Your task to perform on an android device: open a bookmark in the chrome app Image 0: 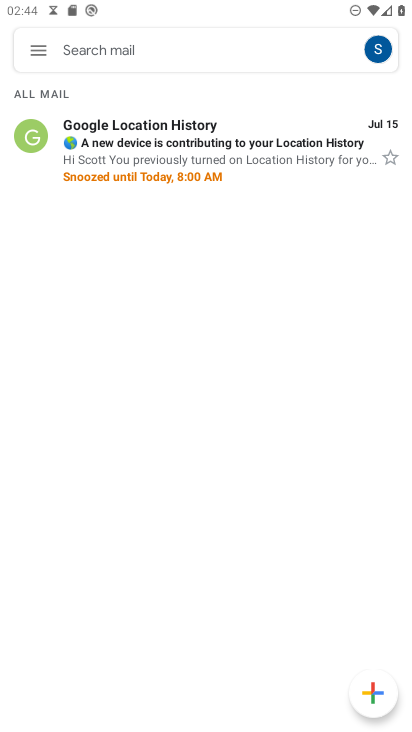
Step 0: press home button
Your task to perform on an android device: open a bookmark in the chrome app Image 1: 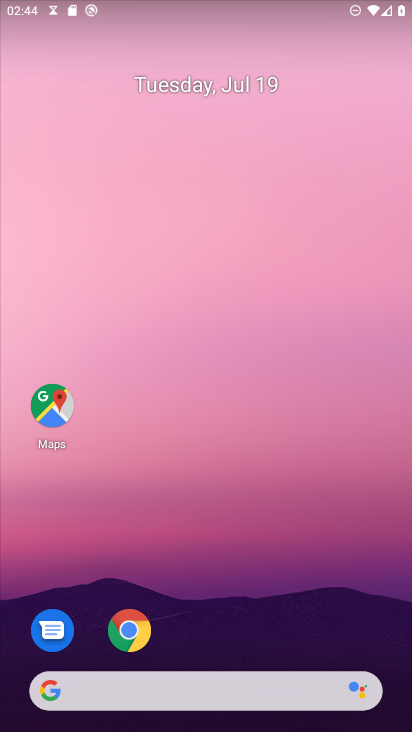
Step 1: click (135, 622)
Your task to perform on an android device: open a bookmark in the chrome app Image 2: 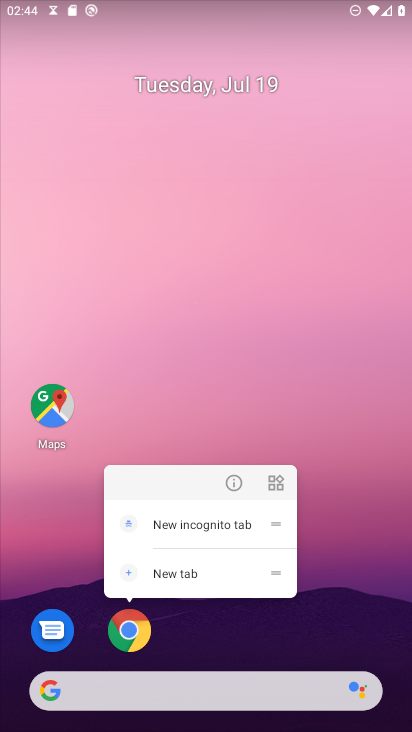
Step 2: click (130, 626)
Your task to perform on an android device: open a bookmark in the chrome app Image 3: 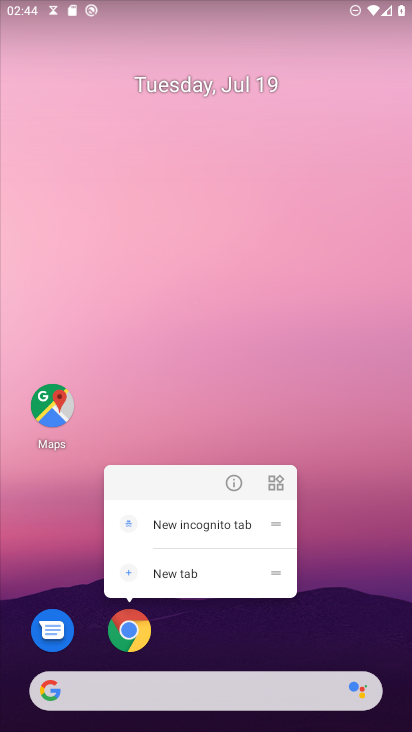
Step 3: click (126, 638)
Your task to perform on an android device: open a bookmark in the chrome app Image 4: 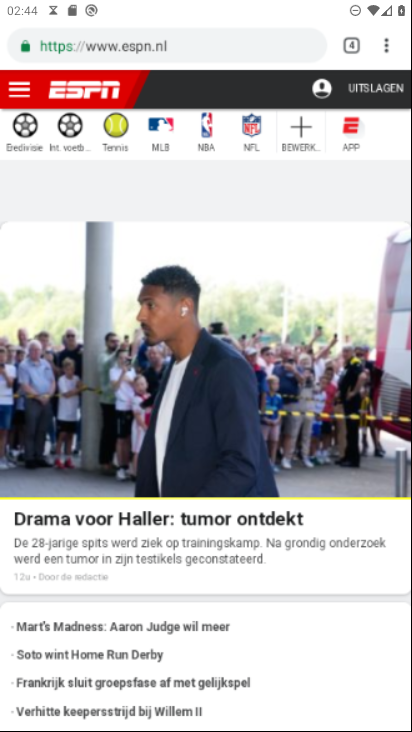
Step 4: click (129, 634)
Your task to perform on an android device: open a bookmark in the chrome app Image 5: 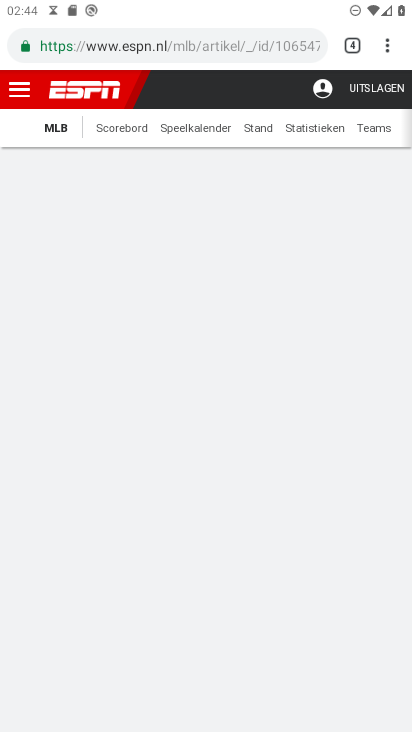
Step 5: task complete